Your task to perform on an android device: check out phone information Image 0: 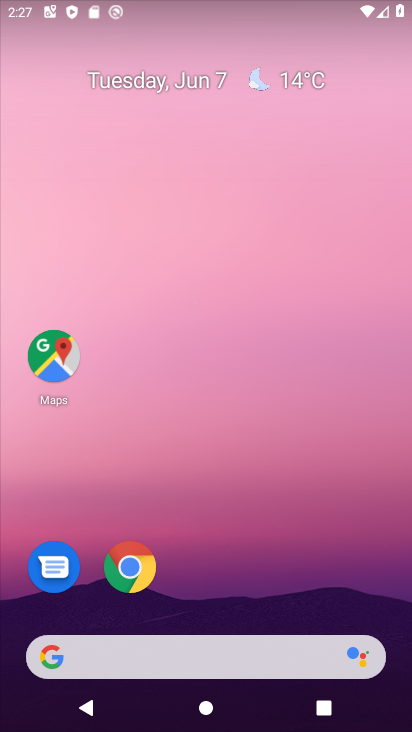
Step 0: drag from (224, 627) to (225, 140)
Your task to perform on an android device: check out phone information Image 1: 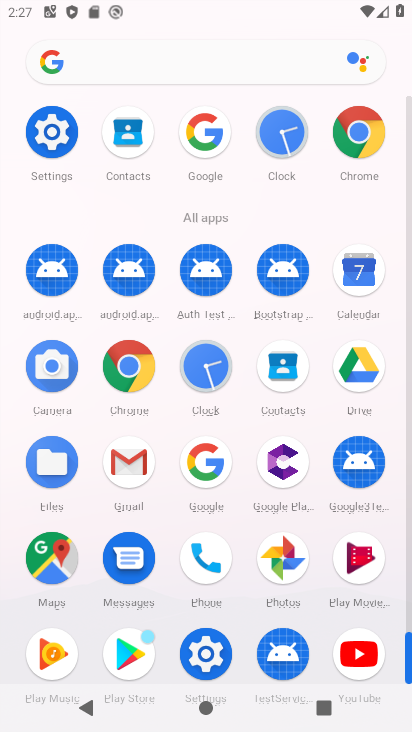
Step 1: click (52, 153)
Your task to perform on an android device: check out phone information Image 2: 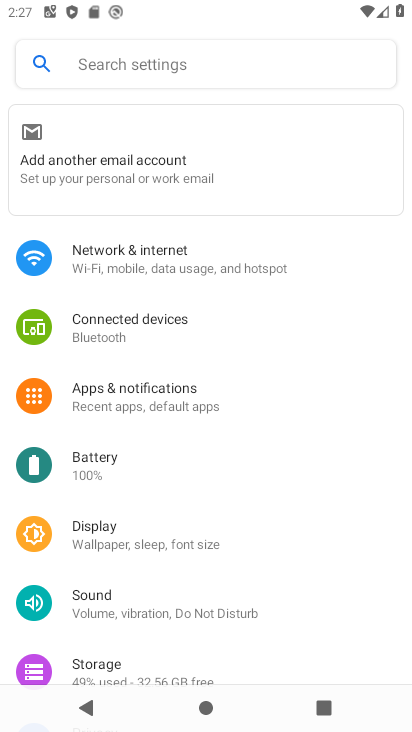
Step 2: drag from (174, 598) to (178, 268)
Your task to perform on an android device: check out phone information Image 3: 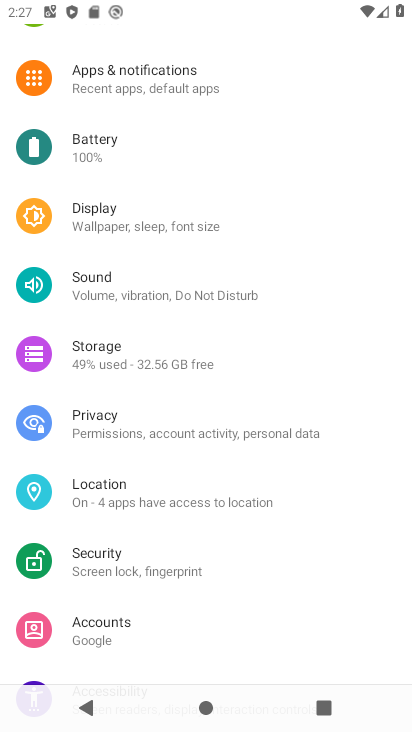
Step 3: drag from (178, 607) to (178, 290)
Your task to perform on an android device: check out phone information Image 4: 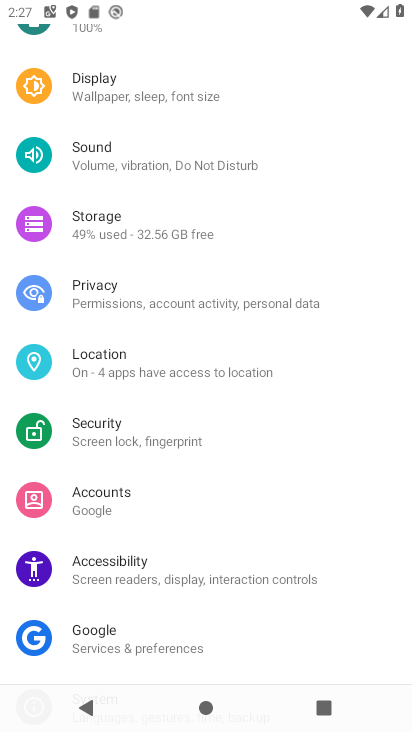
Step 4: drag from (184, 535) to (196, 243)
Your task to perform on an android device: check out phone information Image 5: 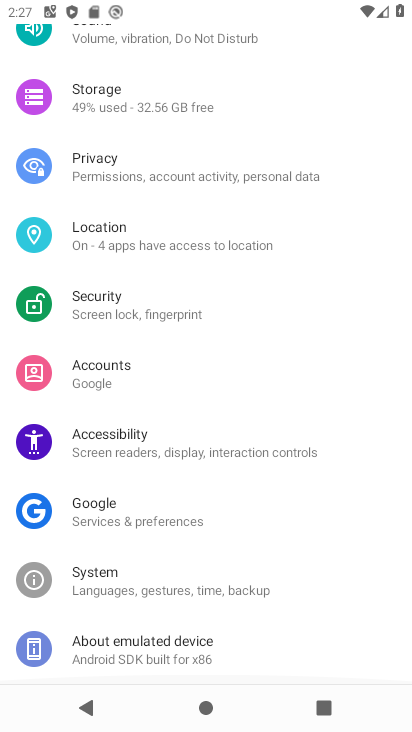
Step 5: drag from (171, 625) to (159, 285)
Your task to perform on an android device: check out phone information Image 6: 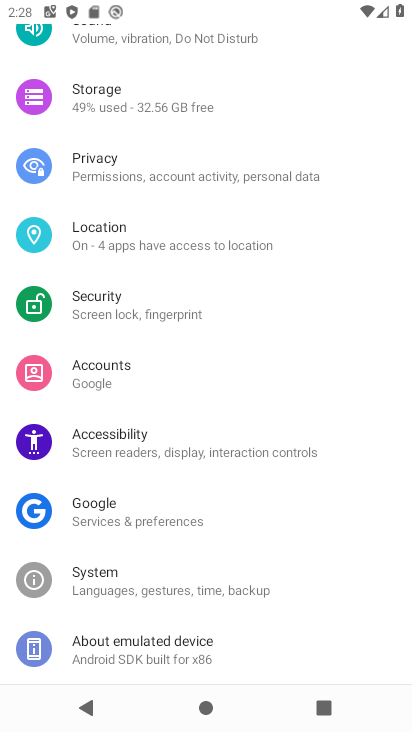
Step 6: drag from (203, 617) to (203, 322)
Your task to perform on an android device: check out phone information Image 7: 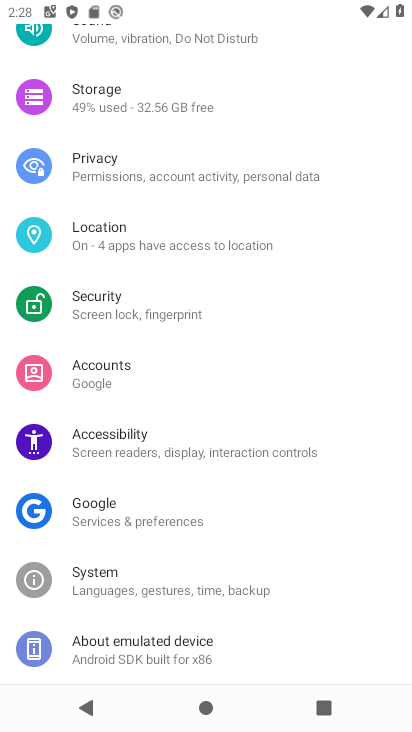
Step 7: drag from (156, 642) to (191, 413)
Your task to perform on an android device: check out phone information Image 8: 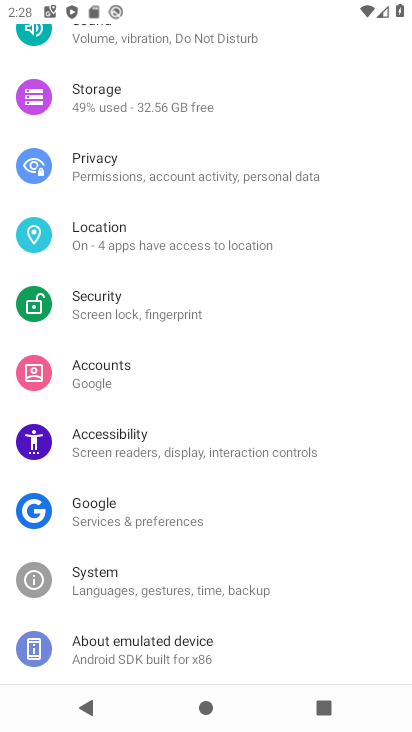
Step 8: drag from (170, 602) to (169, 317)
Your task to perform on an android device: check out phone information Image 9: 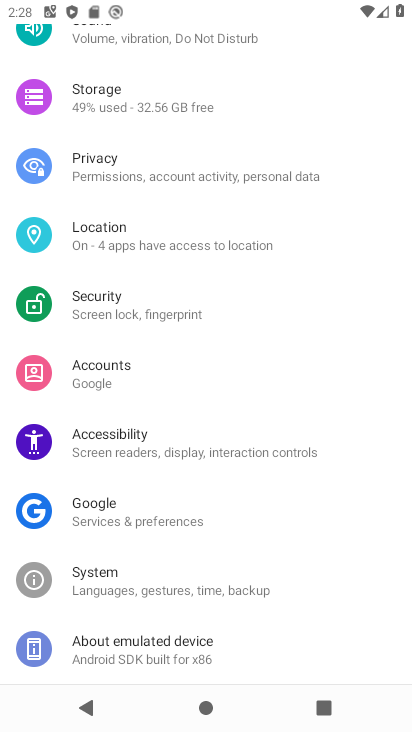
Step 9: drag from (190, 645) to (199, 404)
Your task to perform on an android device: check out phone information Image 10: 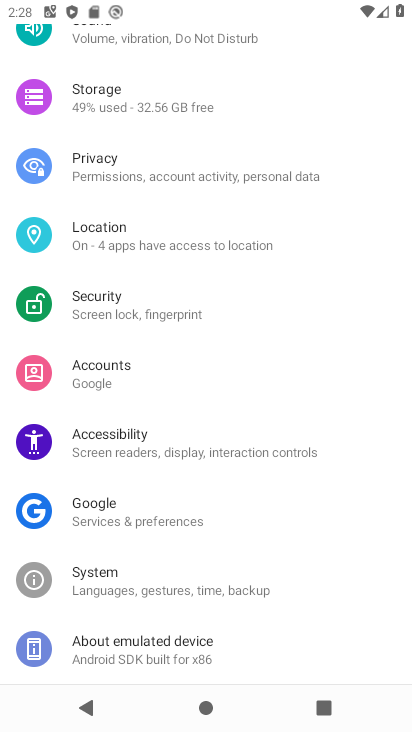
Step 10: click (191, 661)
Your task to perform on an android device: check out phone information Image 11: 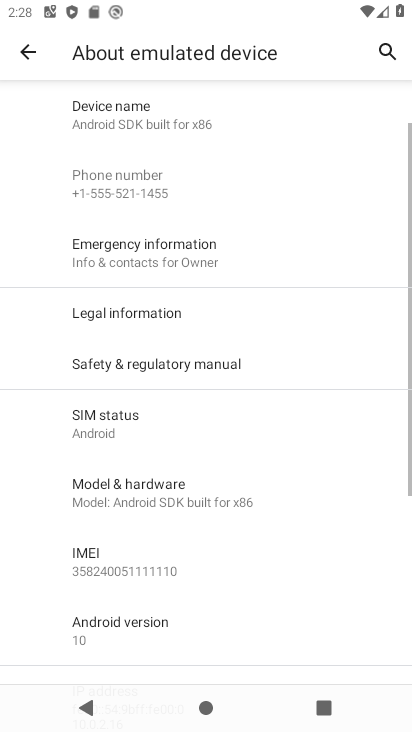
Step 11: task complete